Your task to perform on an android device: Check the weather Image 0: 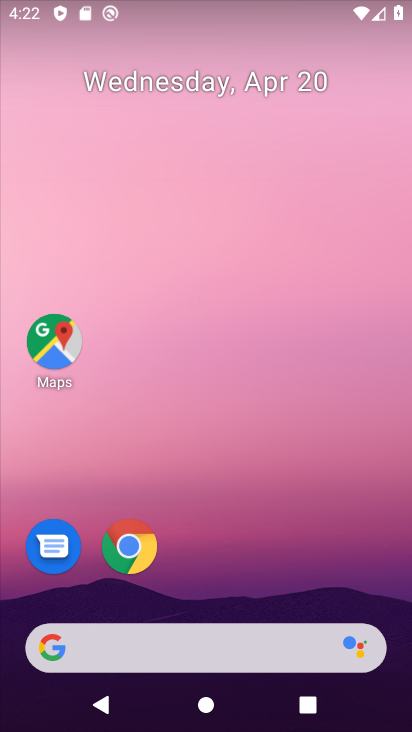
Step 0: drag from (282, 538) to (263, 104)
Your task to perform on an android device: Check the weather Image 1: 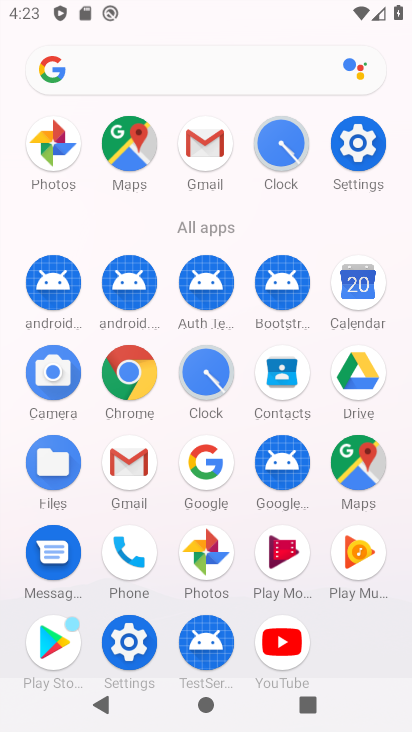
Step 1: click (176, 78)
Your task to perform on an android device: Check the weather Image 2: 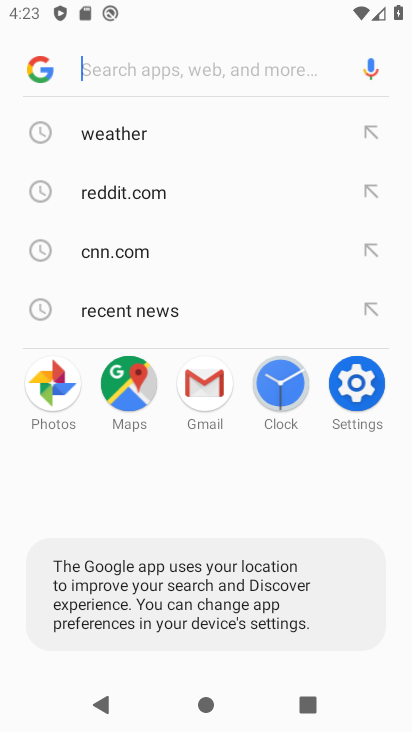
Step 2: click (136, 141)
Your task to perform on an android device: Check the weather Image 3: 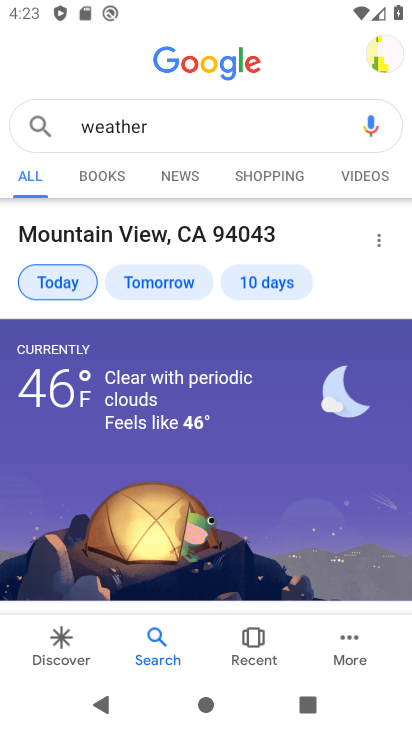
Step 3: task complete